Your task to perform on an android device: Go to Maps Image 0: 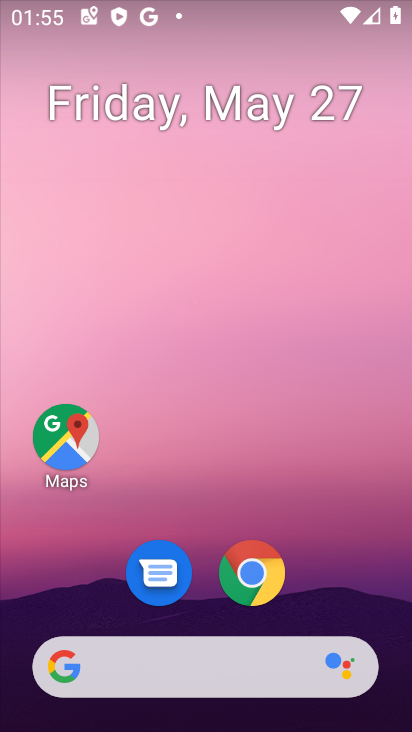
Step 0: drag from (194, 610) to (164, 15)
Your task to perform on an android device: Go to Maps Image 1: 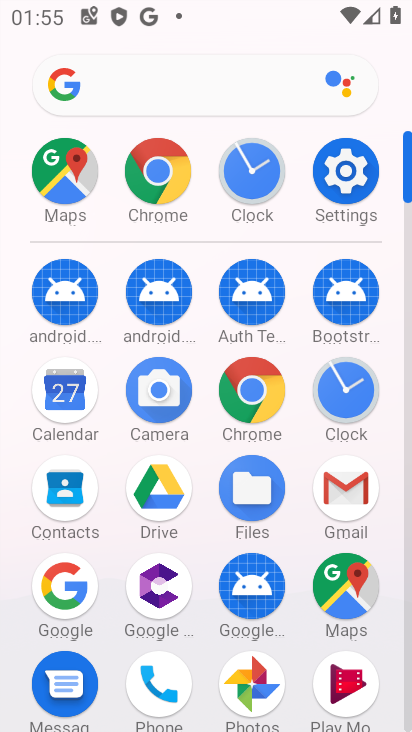
Step 1: click (344, 579)
Your task to perform on an android device: Go to Maps Image 2: 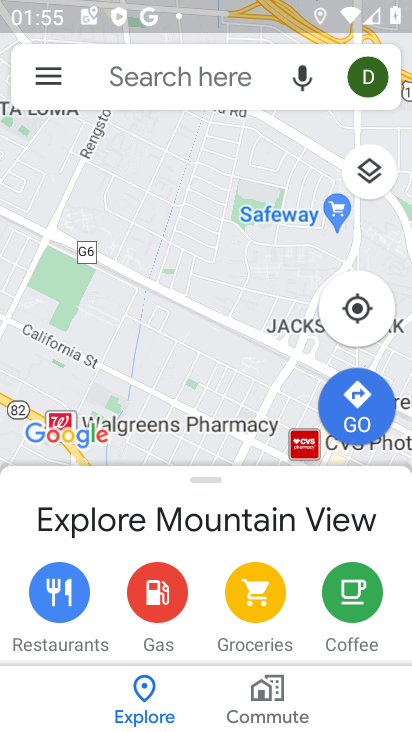
Step 2: task complete